Your task to perform on an android device: What's on my calendar tomorrow? Image 0: 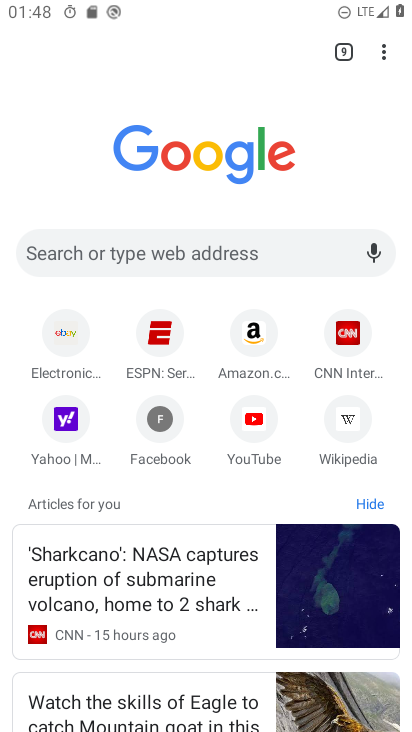
Step 0: press home button
Your task to perform on an android device: What's on my calendar tomorrow? Image 1: 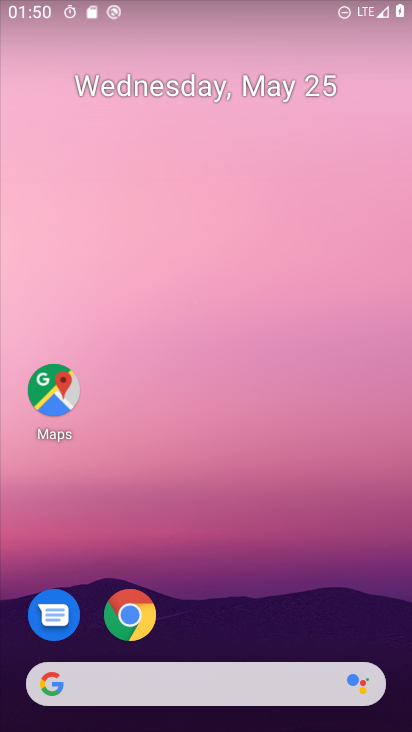
Step 1: drag from (271, 714) to (202, 279)
Your task to perform on an android device: What's on my calendar tomorrow? Image 2: 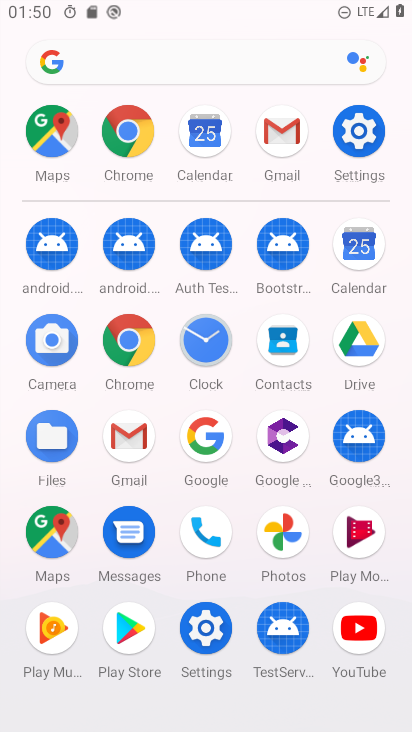
Step 2: click (358, 254)
Your task to perform on an android device: What's on my calendar tomorrow? Image 3: 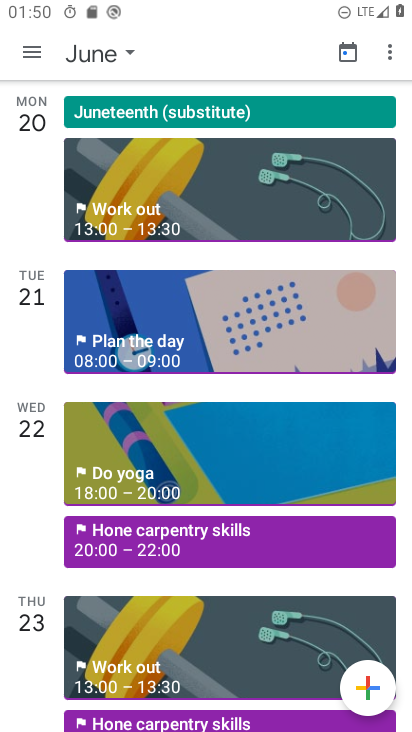
Step 3: click (33, 60)
Your task to perform on an android device: What's on my calendar tomorrow? Image 4: 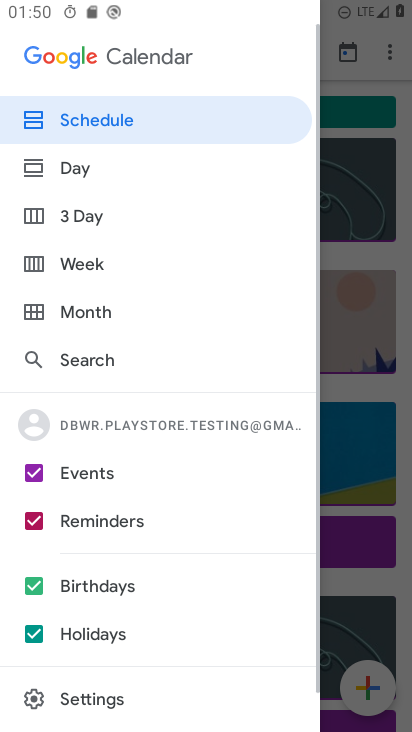
Step 4: click (104, 300)
Your task to perform on an android device: What's on my calendar tomorrow? Image 5: 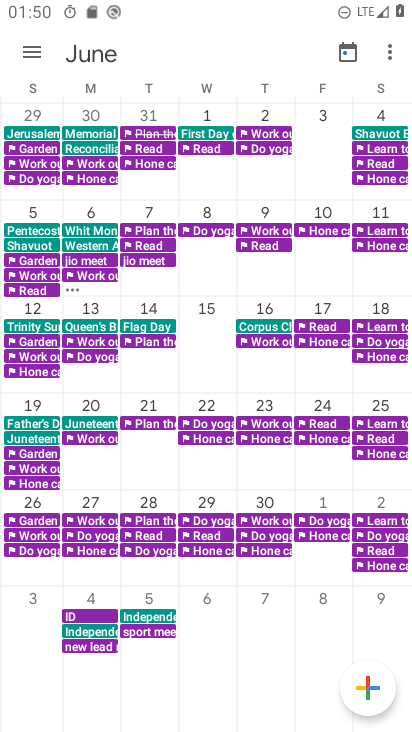
Step 5: drag from (25, 478) to (408, 254)
Your task to perform on an android device: What's on my calendar tomorrow? Image 6: 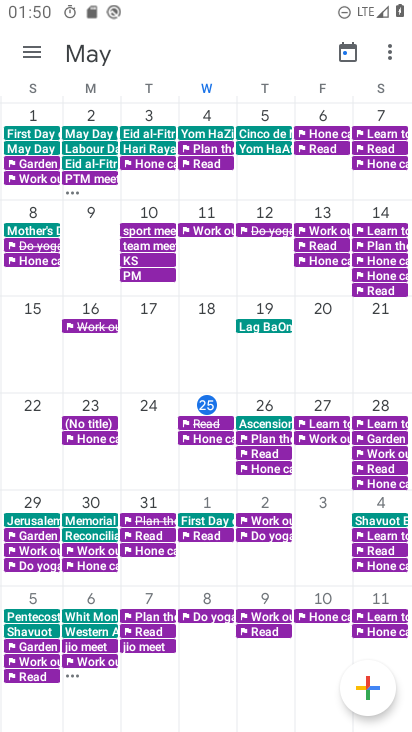
Step 6: click (33, 61)
Your task to perform on an android device: What's on my calendar tomorrow? Image 7: 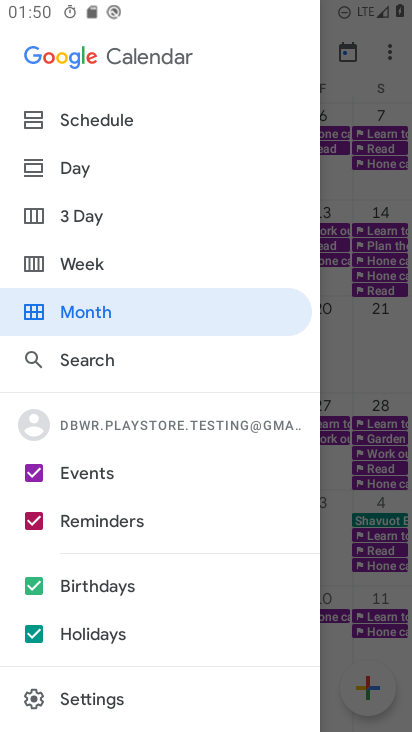
Step 7: click (98, 115)
Your task to perform on an android device: What's on my calendar tomorrow? Image 8: 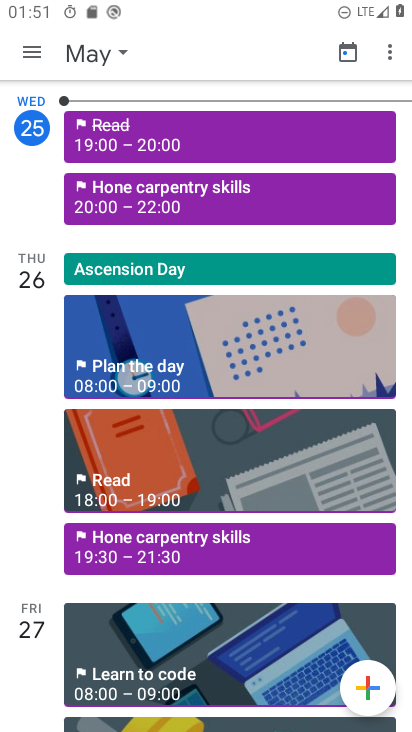
Step 8: task complete